Your task to perform on an android device: check the backup settings in the google photos Image 0: 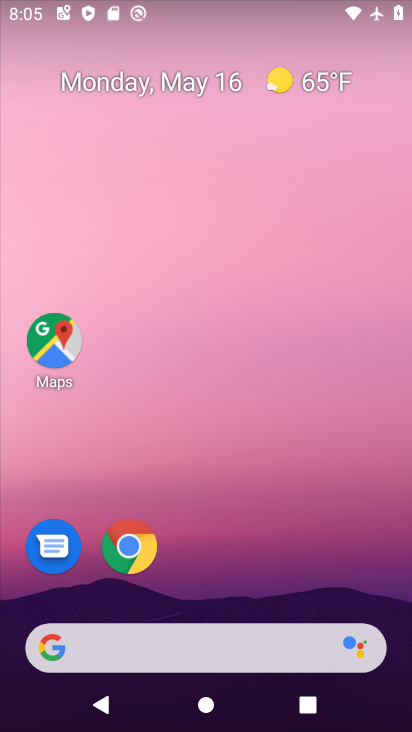
Step 0: drag from (278, 559) to (355, 60)
Your task to perform on an android device: check the backup settings in the google photos Image 1: 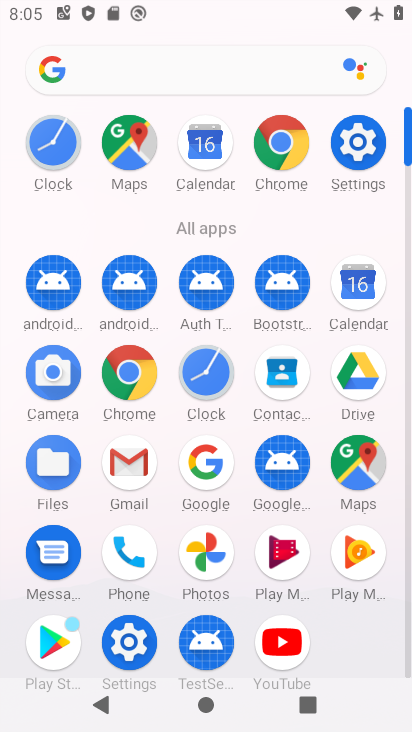
Step 1: click (190, 560)
Your task to perform on an android device: check the backup settings in the google photos Image 2: 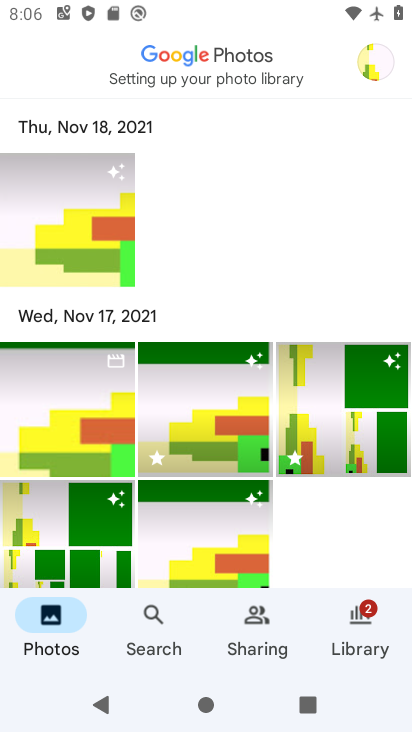
Step 2: click (376, 73)
Your task to perform on an android device: check the backup settings in the google photos Image 3: 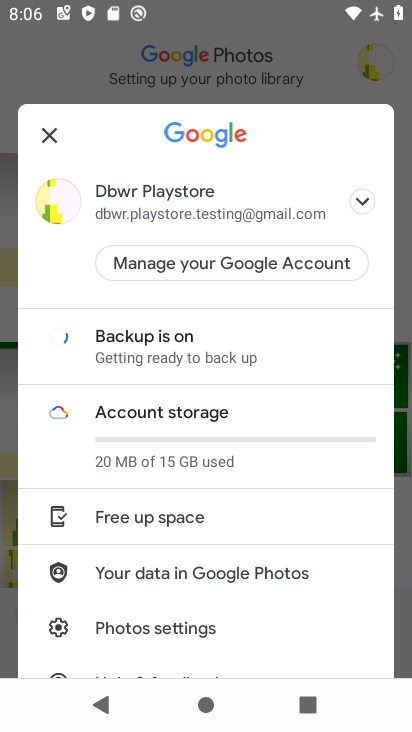
Step 3: click (250, 328)
Your task to perform on an android device: check the backup settings in the google photos Image 4: 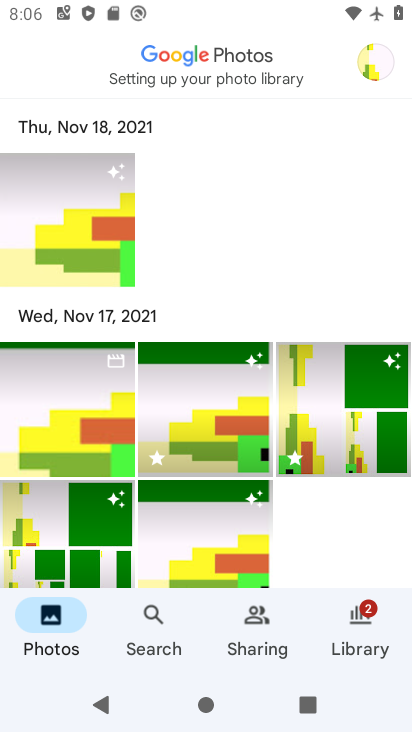
Step 4: click (374, 78)
Your task to perform on an android device: check the backup settings in the google photos Image 5: 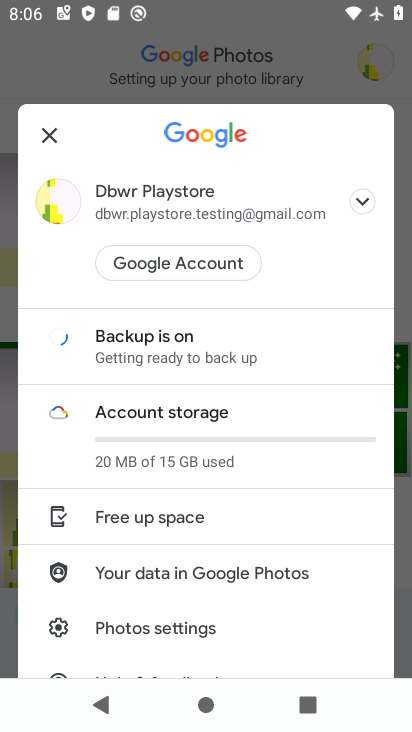
Step 5: click (223, 224)
Your task to perform on an android device: check the backup settings in the google photos Image 6: 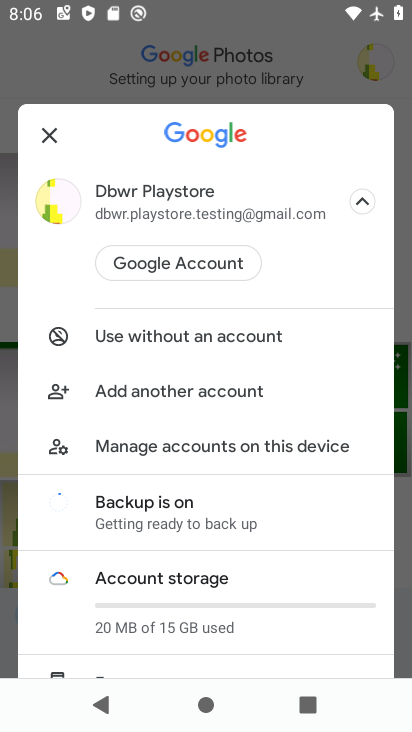
Step 6: click (189, 509)
Your task to perform on an android device: check the backup settings in the google photos Image 7: 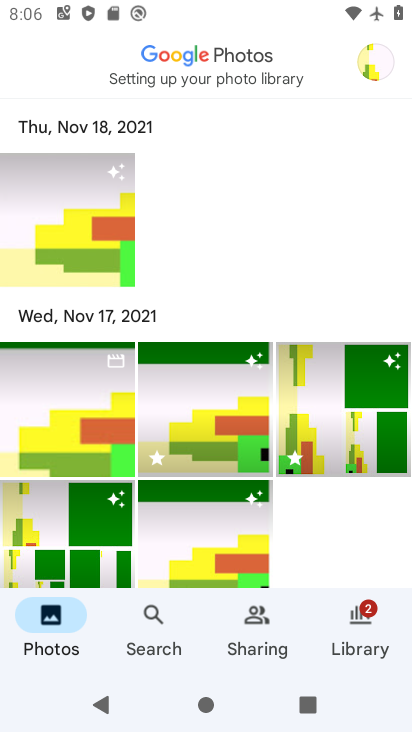
Step 7: task complete